Your task to perform on an android device: choose inbox layout in the gmail app Image 0: 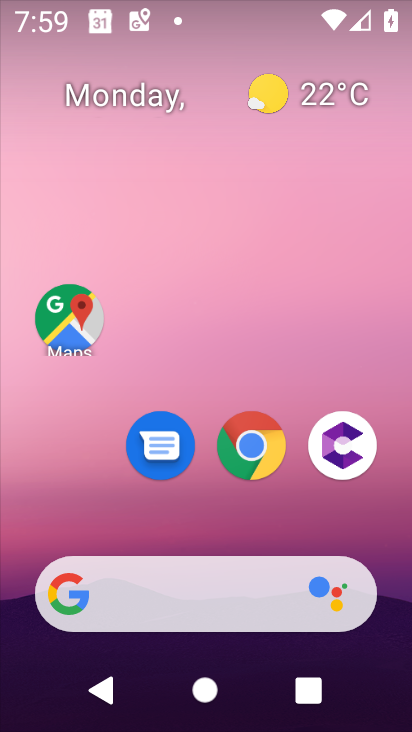
Step 0: press home button
Your task to perform on an android device: choose inbox layout in the gmail app Image 1: 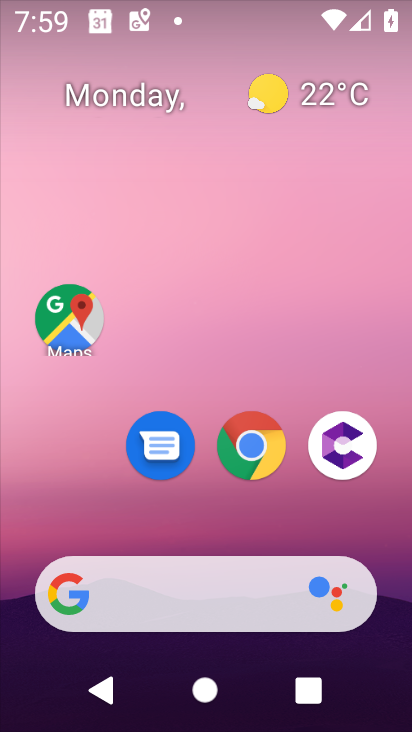
Step 1: drag from (236, 529) to (205, 94)
Your task to perform on an android device: choose inbox layout in the gmail app Image 2: 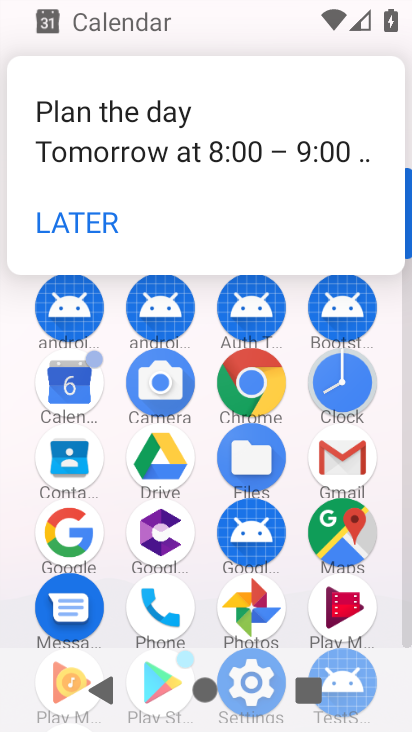
Step 2: click (14, 317)
Your task to perform on an android device: choose inbox layout in the gmail app Image 3: 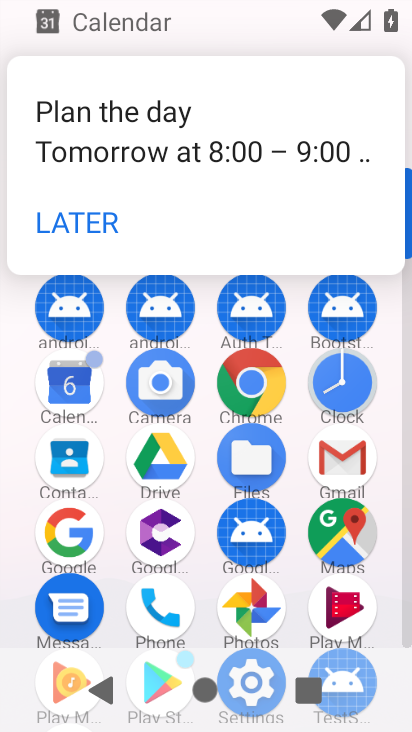
Step 3: click (79, 217)
Your task to perform on an android device: choose inbox layout in the gmail app Image 4: 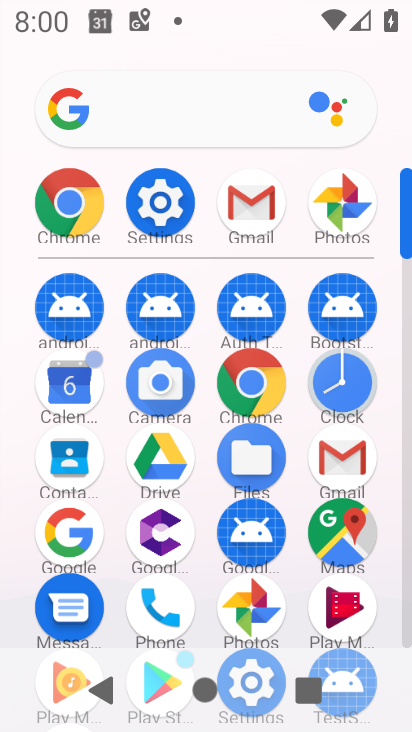
Step 4: click (343, 456)
Your task to perform on an android device: choose inbox layout in the gmail app Image 5: 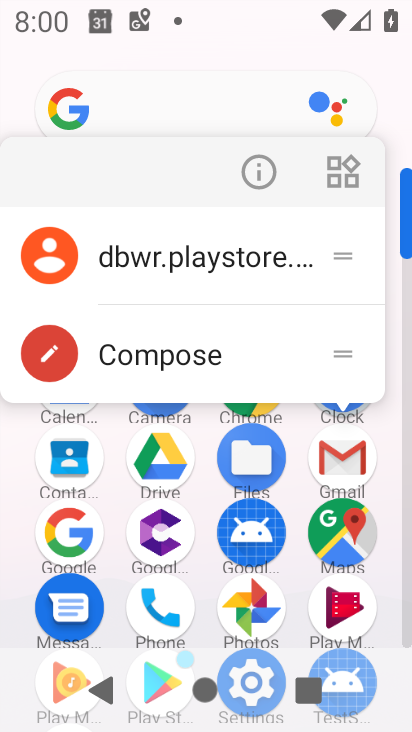
Step 5: click (343, 456)
Your task to perform on an android device: choose inbox layout in the gmail app Image 6: 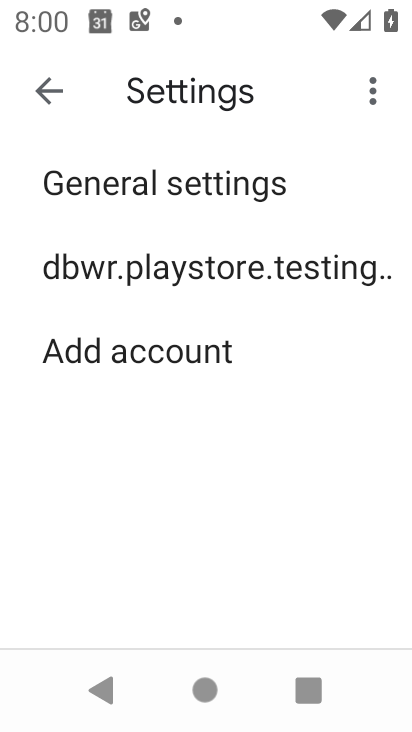
Step 6: click (198, 269)
Your task to perform on an android device: choose inbox layout in the gmail app Image 7: 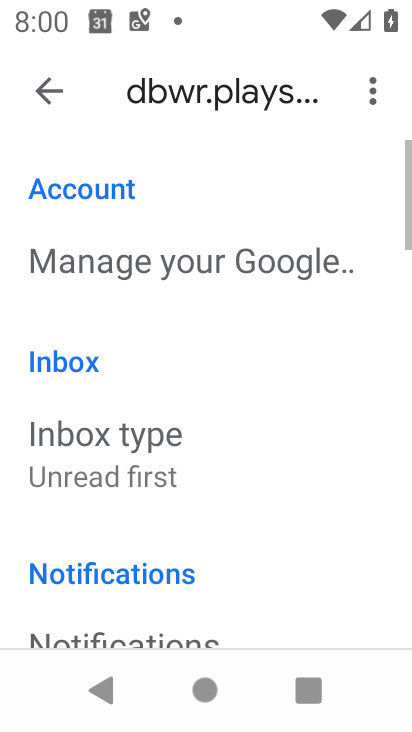
Step 7: drag from (252, 504) to (278, 215)
Your task to perform on an android device: choose inbox layout in the gmail app Image 8: 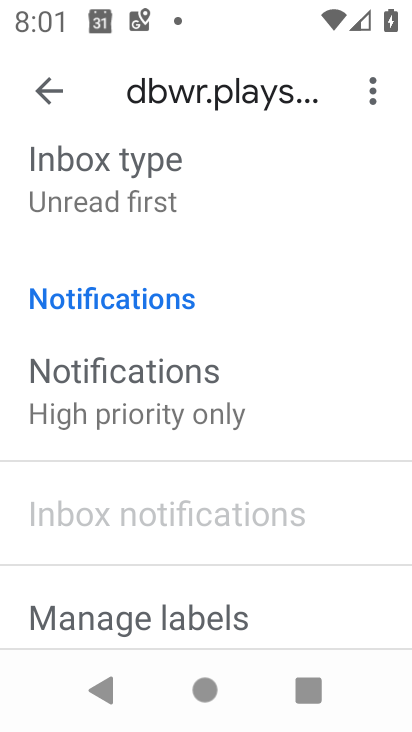
Step 8: click (117, 187)
Your task to perform on an android device: choose inbox layout in the gmail app Image 9: 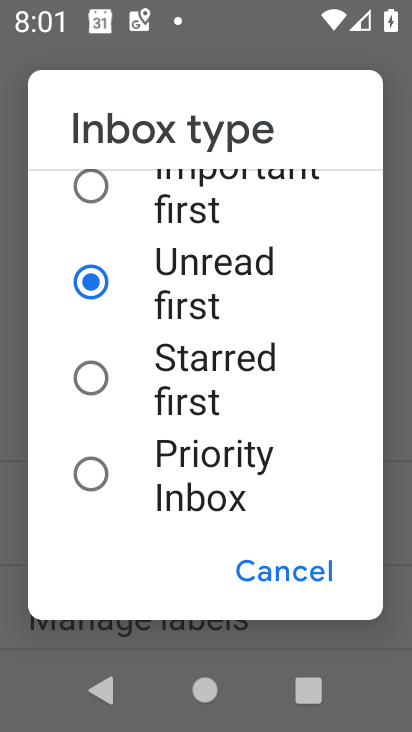
Step 9: click (91, 475)
Your task to perform on an android device: choose inbox layout in the gmail app Image 10: 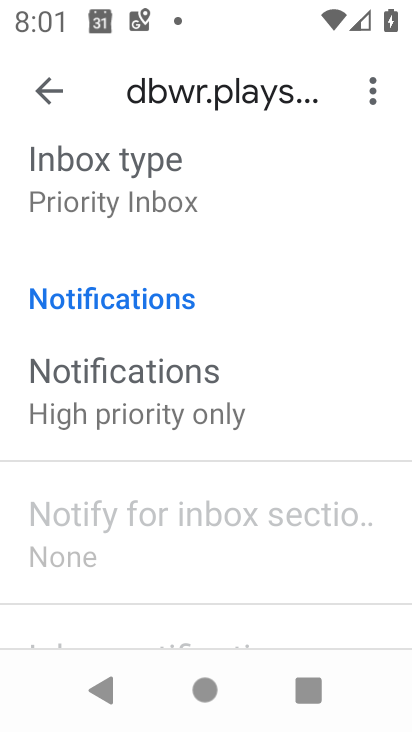
Step 10: task complete